Your task to perform on an android device: Open the Play Movies app and select the watchlist tab. Image 0: 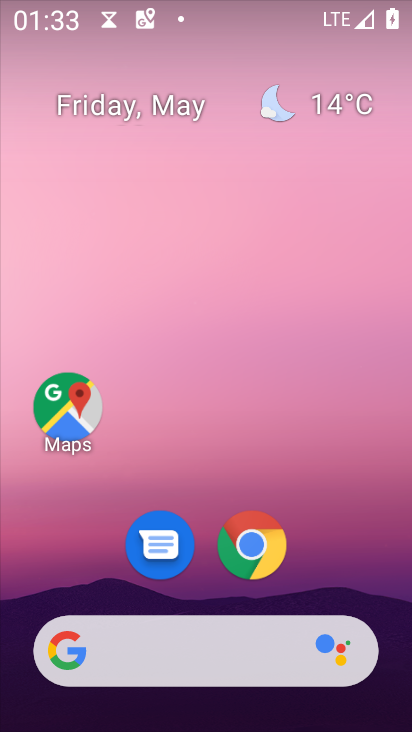
Step 0: drag from (303, 581) to (337, 236)
Your task to perform on an android device: Open the Play Movies app and select the watchlist tab. Image 1: 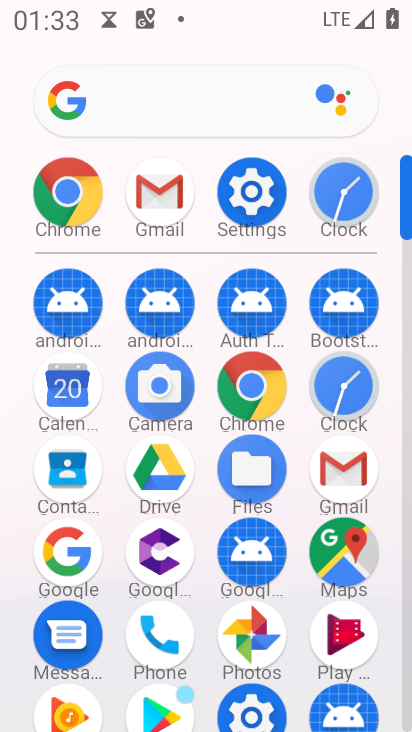
Step 1: click (224, 283)
Your task to perform on an android device: Open the Play Movies app and select the watchlist tab. Image 2: 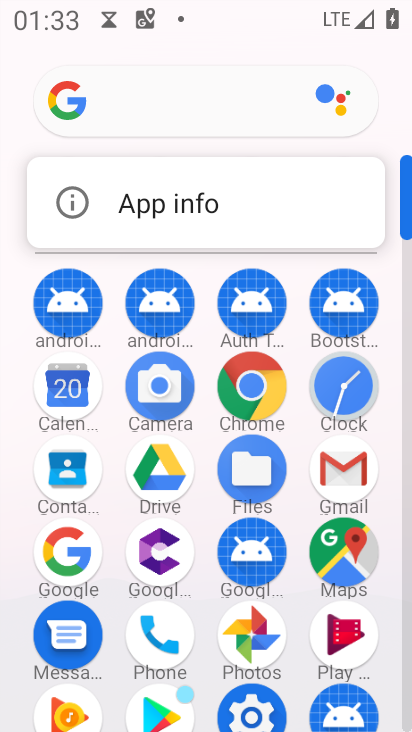
Step 2: click (170, 126)
Your task to perform on an android device: Open the Play Movies app and select the watchlist tab. Image 3: 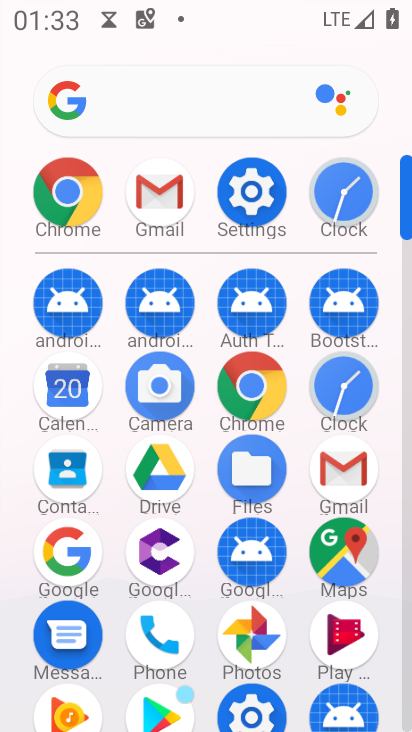
Step 3: drag from (187, 587) to (187, 293)
Your task to perform on an android device: Open the Play Movies app and select the watchlist tab. Image 4: 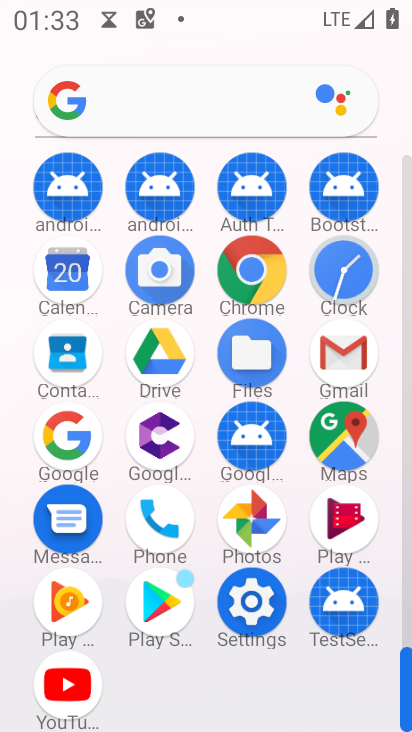
Step 4: click (350, 520)
Your task to perform on an android device: Open the Play Movies app and select the watchlist tab. Image 5: 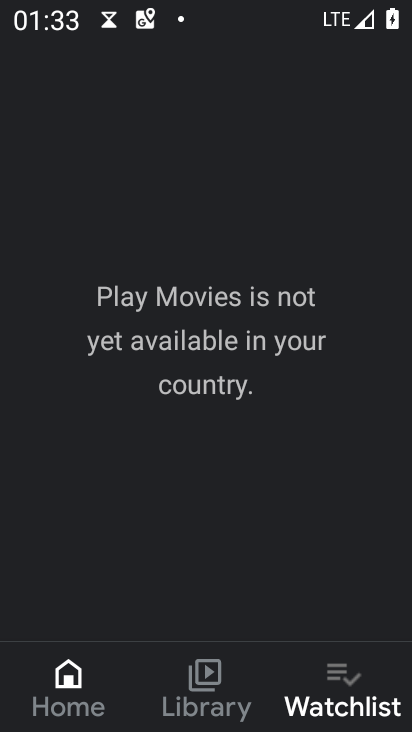
Step 5: click (339, 686)
Your task to perform on an android device: Open the Play Movies app and select the watchlist tab. Image 6: 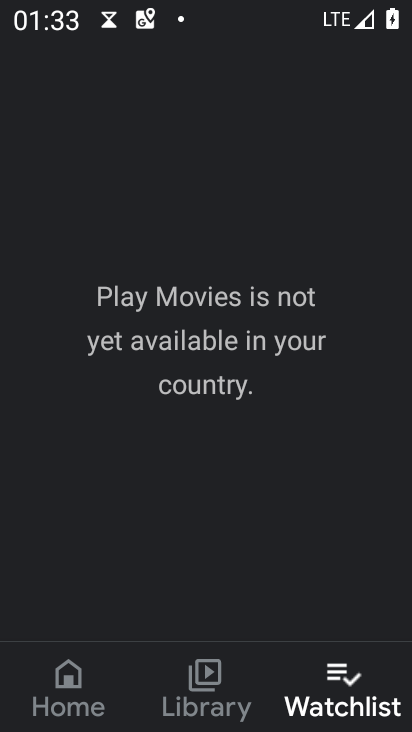
Step 6: task complete